Your task to perform on an android device: Go to display settings Image 0: 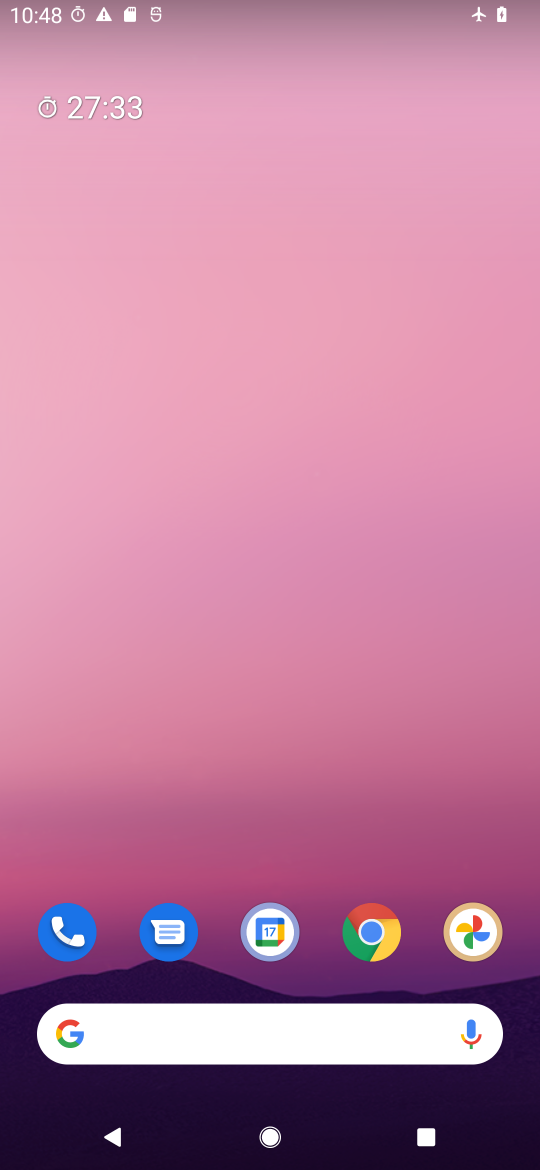
Step 0: press home button
Your task to perform on an android device: Go to display settings Image 1: 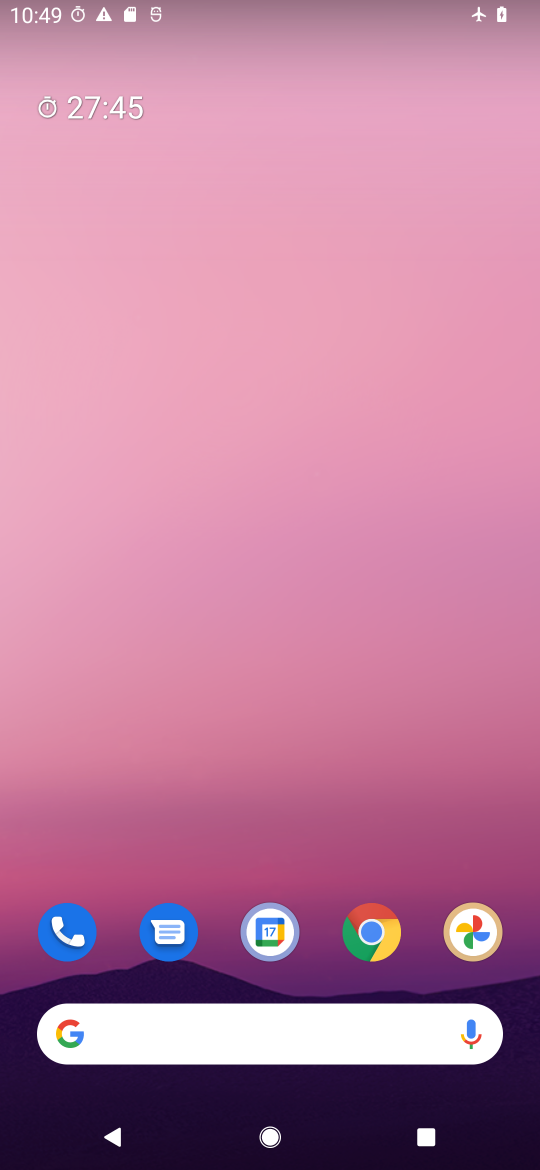
Step 1: drag from (317, 837) to (318, 193)
Your task to perform on an android device: Go to display settings Image 2: 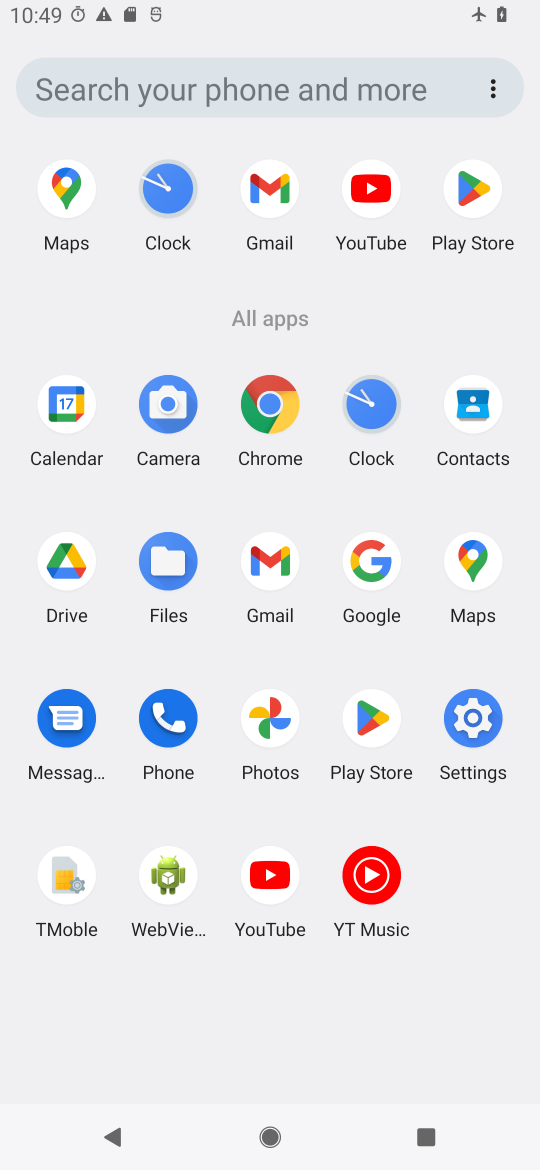
Step 2: click (471, 740)
Your task to perform on an android device: Go to display settings Image 3: 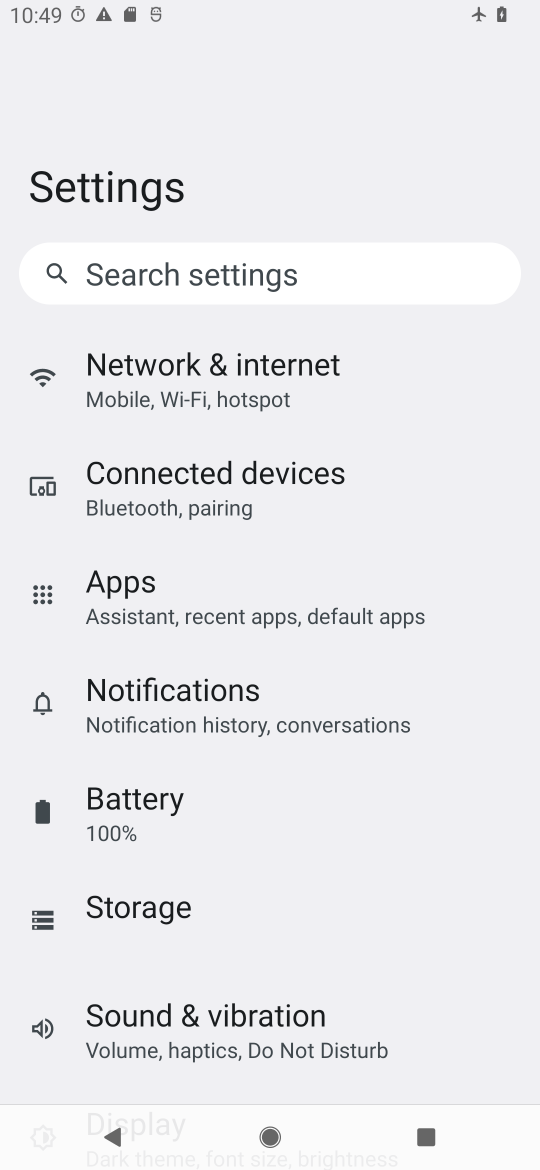
Step 3: drag from (207, 968) to (207, 363)
Your task to perform on an android device: Go to display settings Image 4: 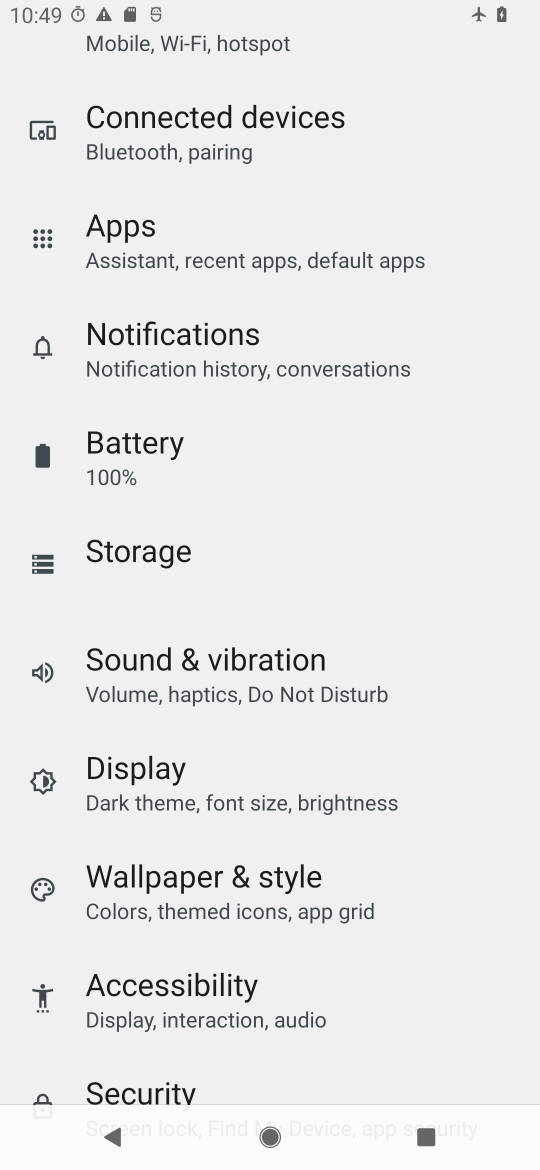
Step 4: click (144, 780)
Your task to perform on an android device: Go to display settings Image 5: 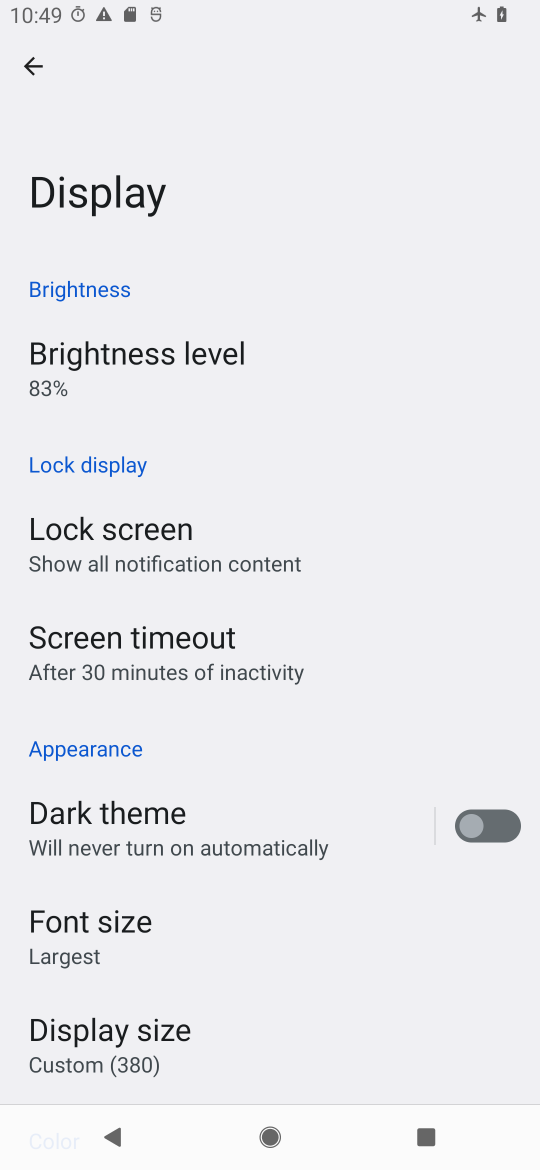
Step 5: task complete